Your task to perform on an android device: open app "Grab" (install if not already installed) and go to login screen Image 0: 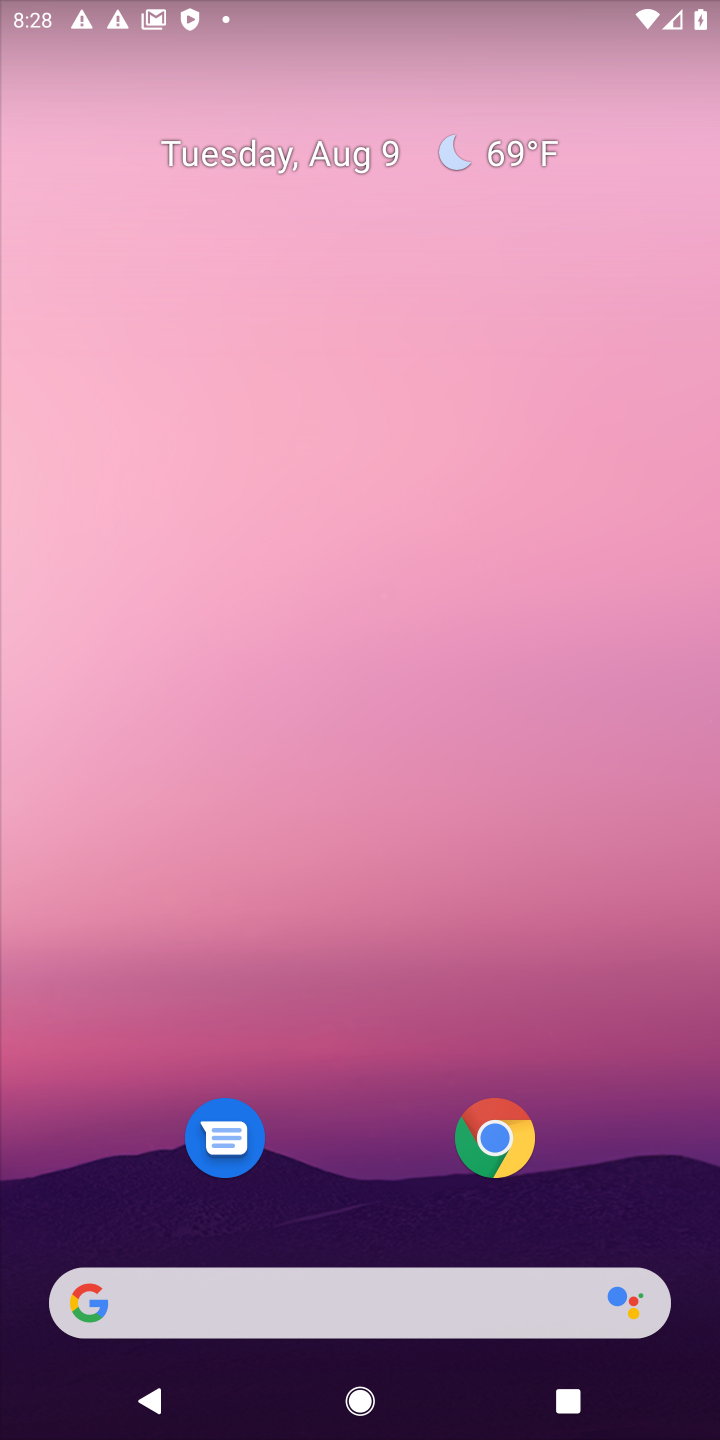
Step 0: drag from (328, 1230) to (321, 196)
Your task to perform on an android device: open app "Grab" (install if not already installed) and go to login screen Image 1: 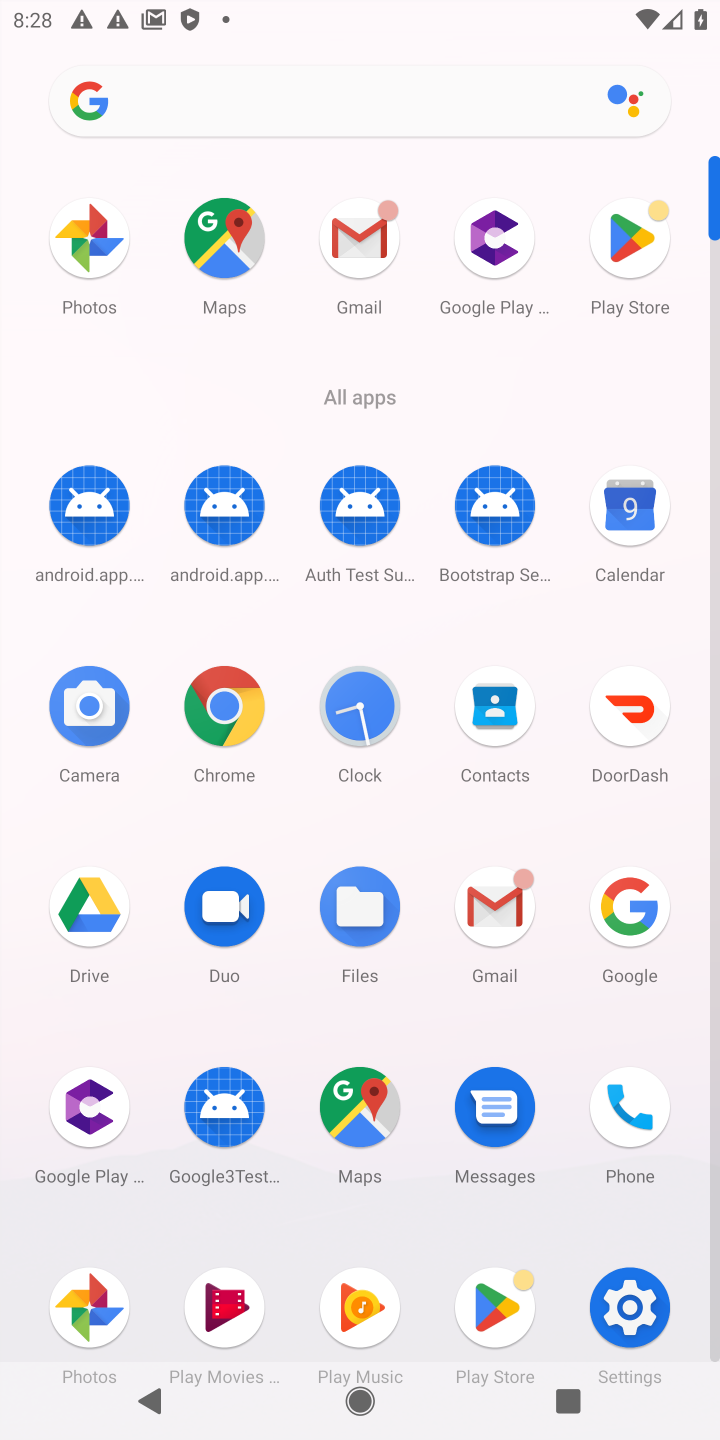
Step 1: click (647, 243)
Your task to perform on an android device: open app "Grab" (install if not already installed) and go to login screen Image 2: 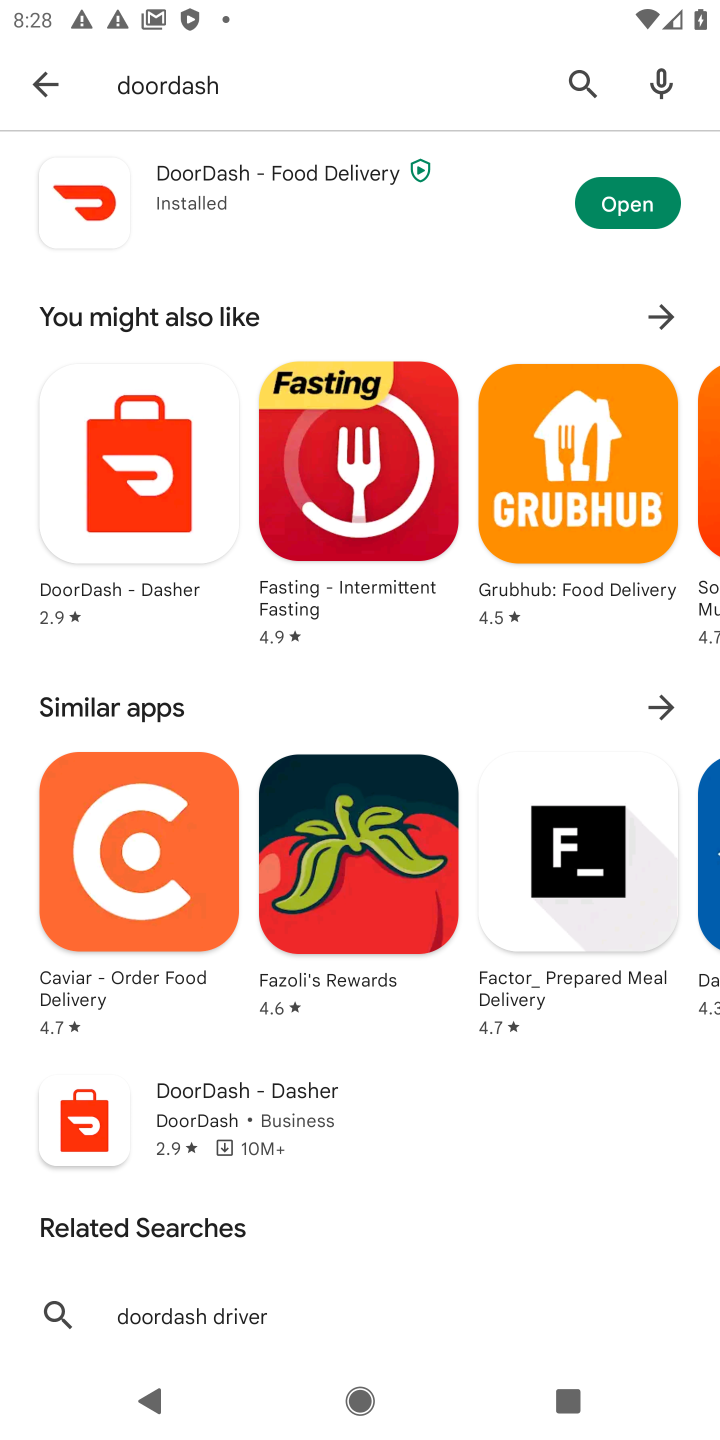
Step 2: click (556, 100)
Your task to perform on an android device: open app "Grab" (install if not already installed) and go to login screen Image 3: 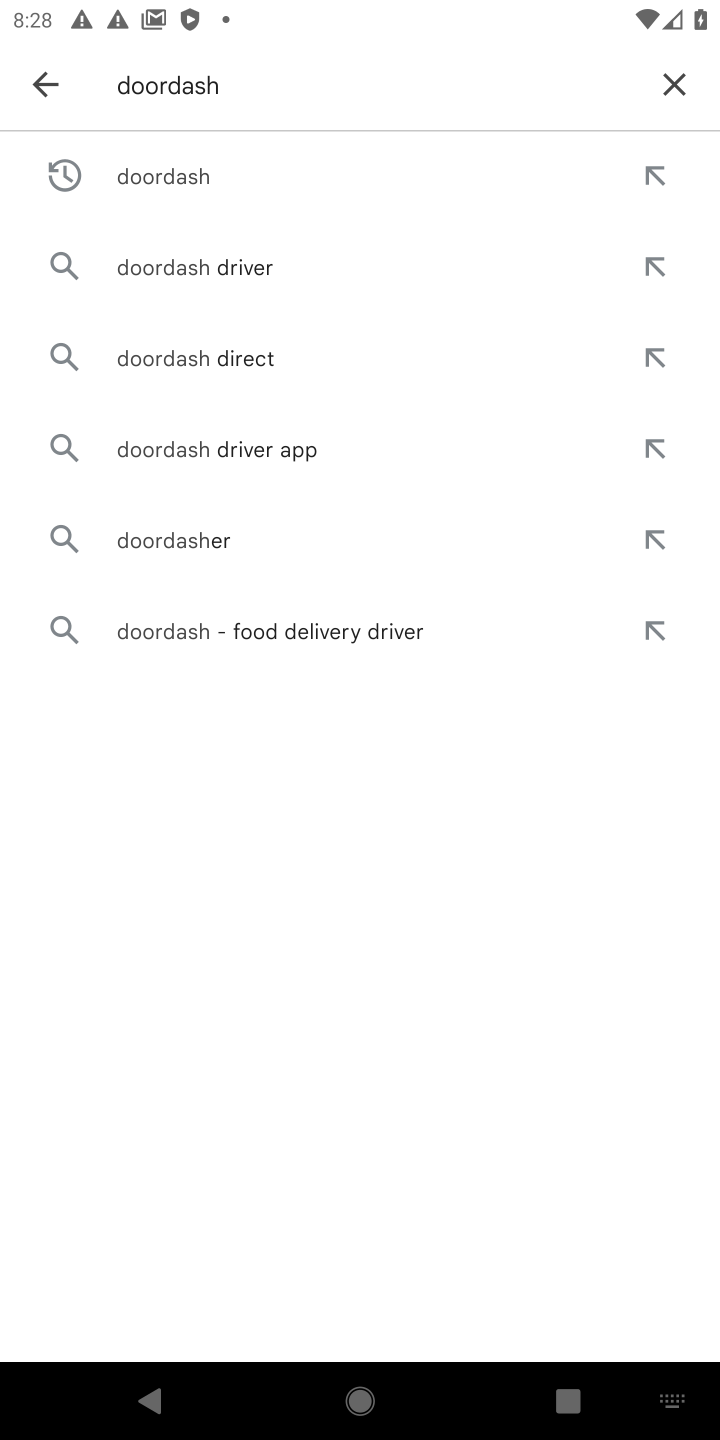
Step 3: click (688, 94)
Your task to perform on an android device: open app "Grab" (install if not already installed) and go to login screen Image 4: 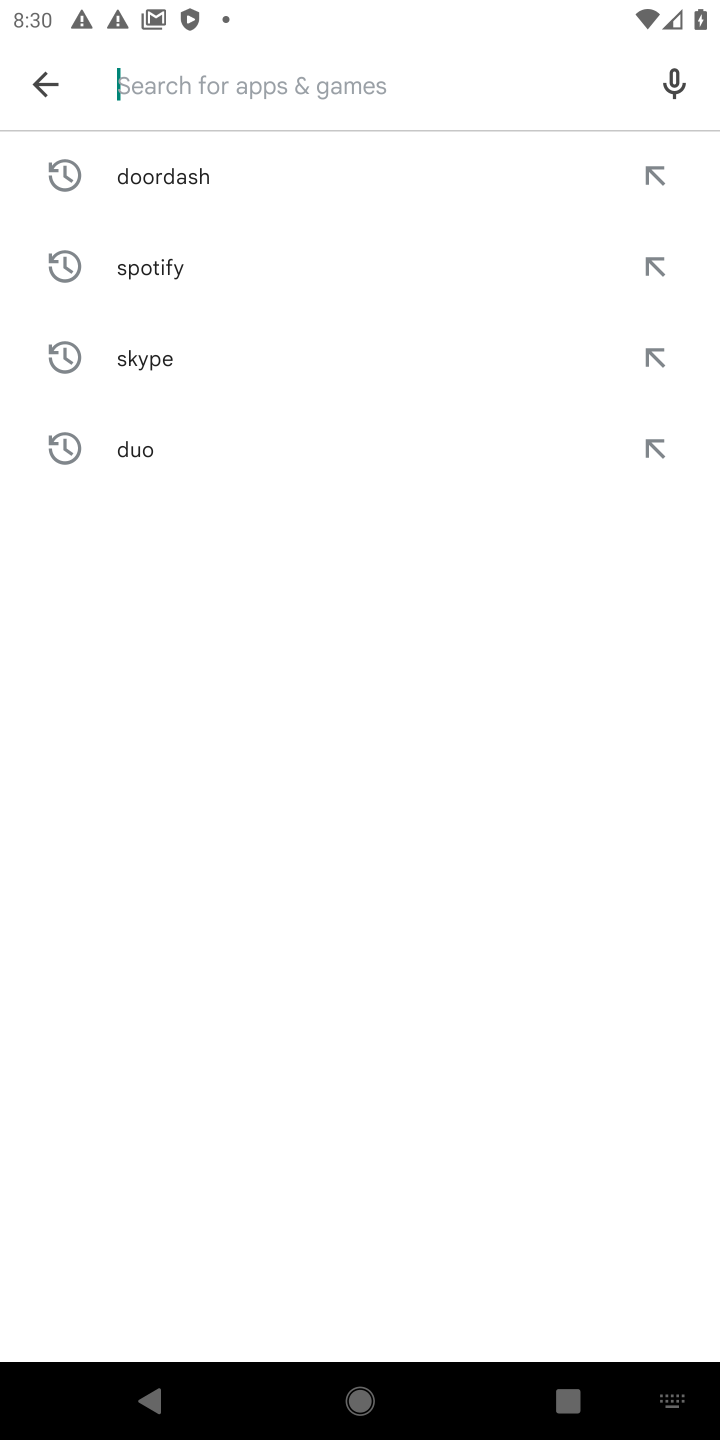
Step 4: type "grab"
Your task to perform on an android device: open app "Grab" (install if not already installed) and go to login screen Image 5: 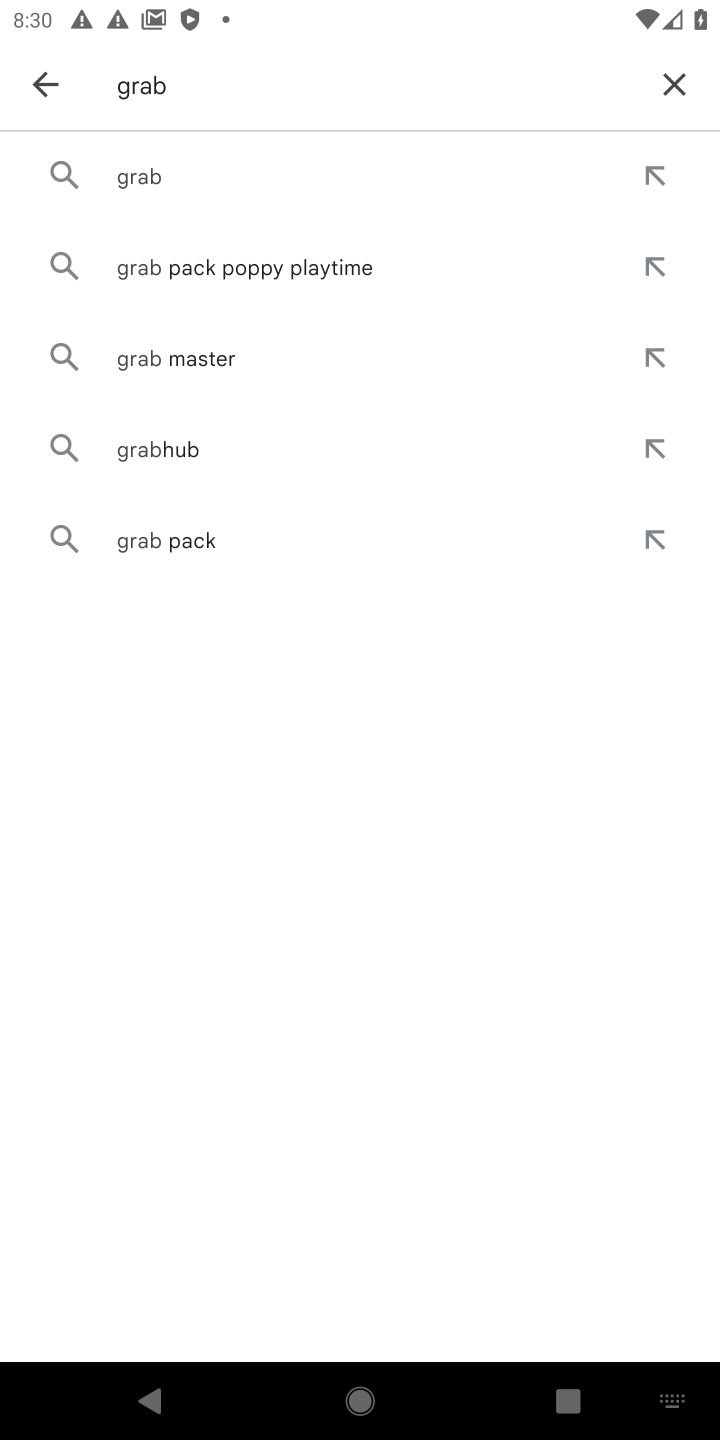
Step 5: click (252, 156)
Your task to perform on an android device: open app "Grab" (install if not already installed) and go to login screen Image 6: 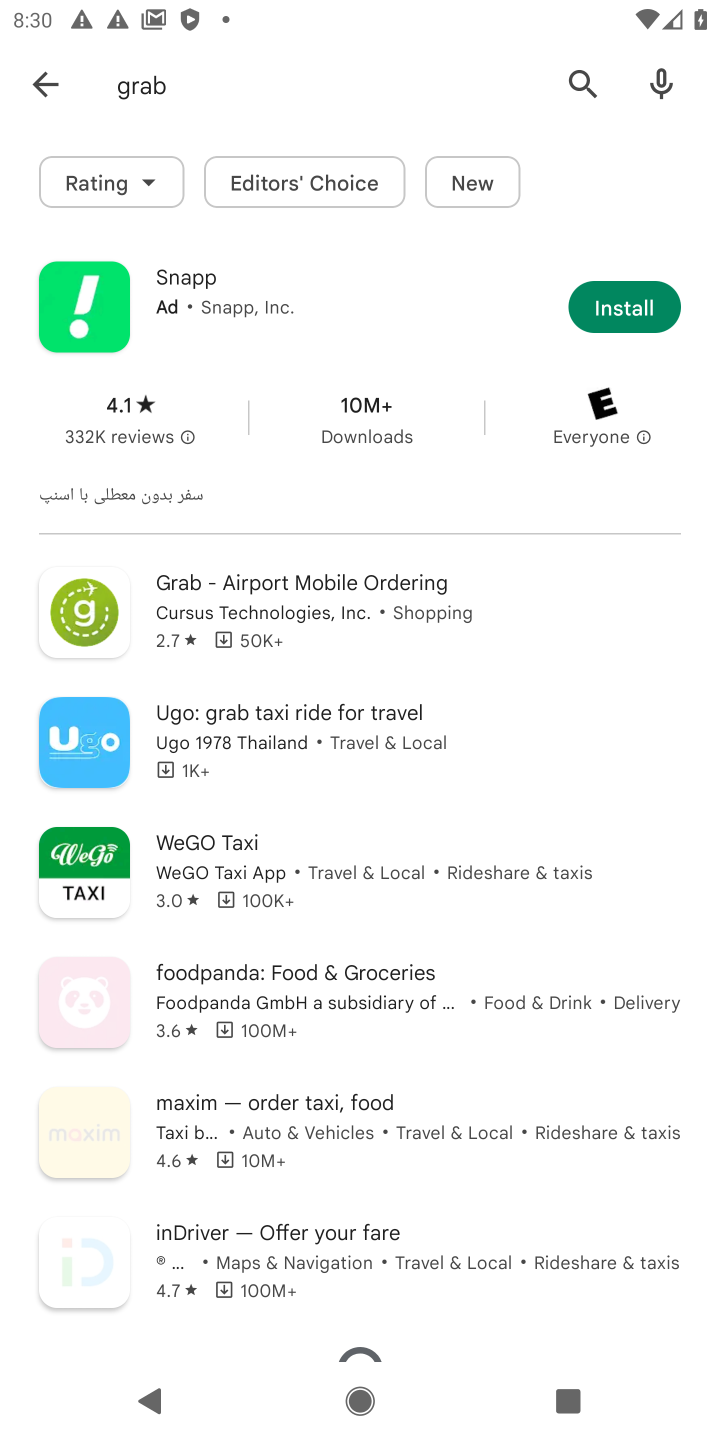
Step 6: click (608, 295)
Your task to perform on an android device: open app "Grab" (install if not already installed) and go to login screen Image 7: 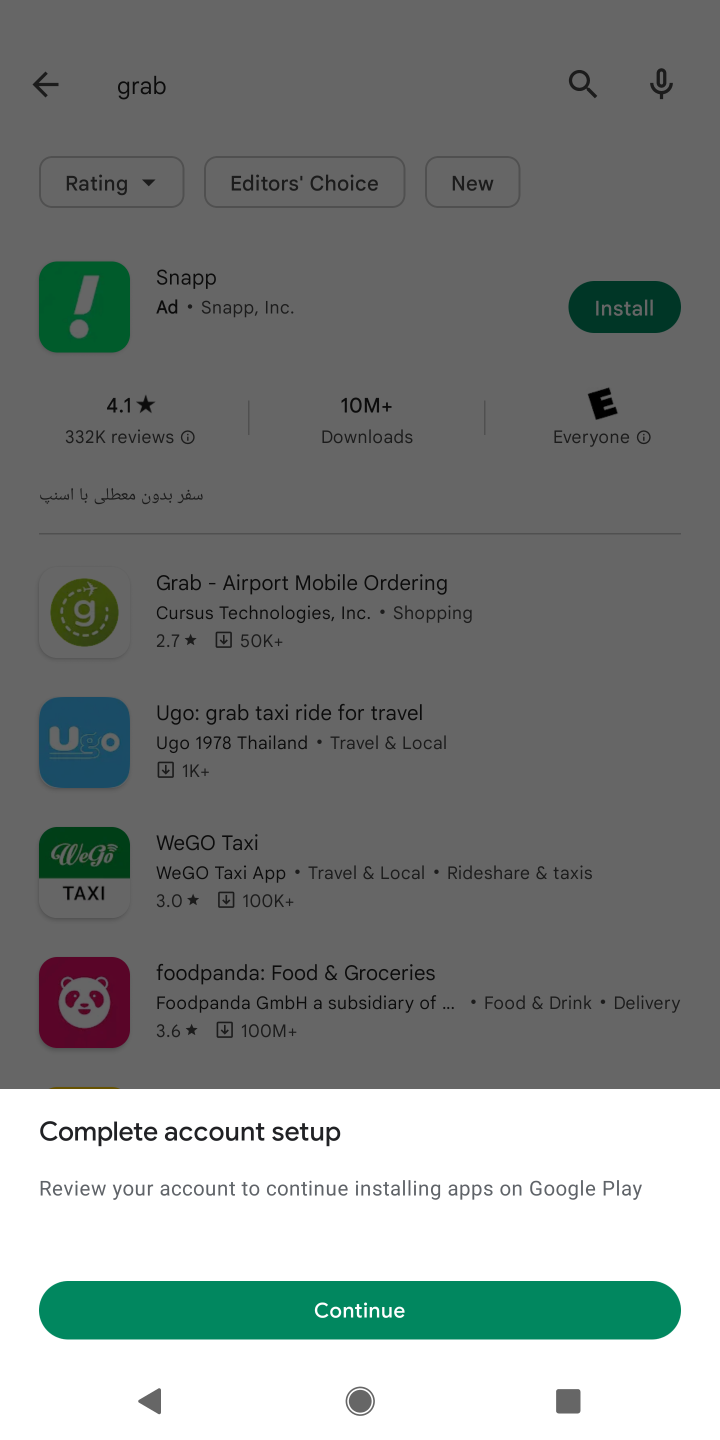
Step 7: click (252, 1304)
Your task to perform on an android device: open app "Grab" (install if not already installed) and go to login screen Image 8: 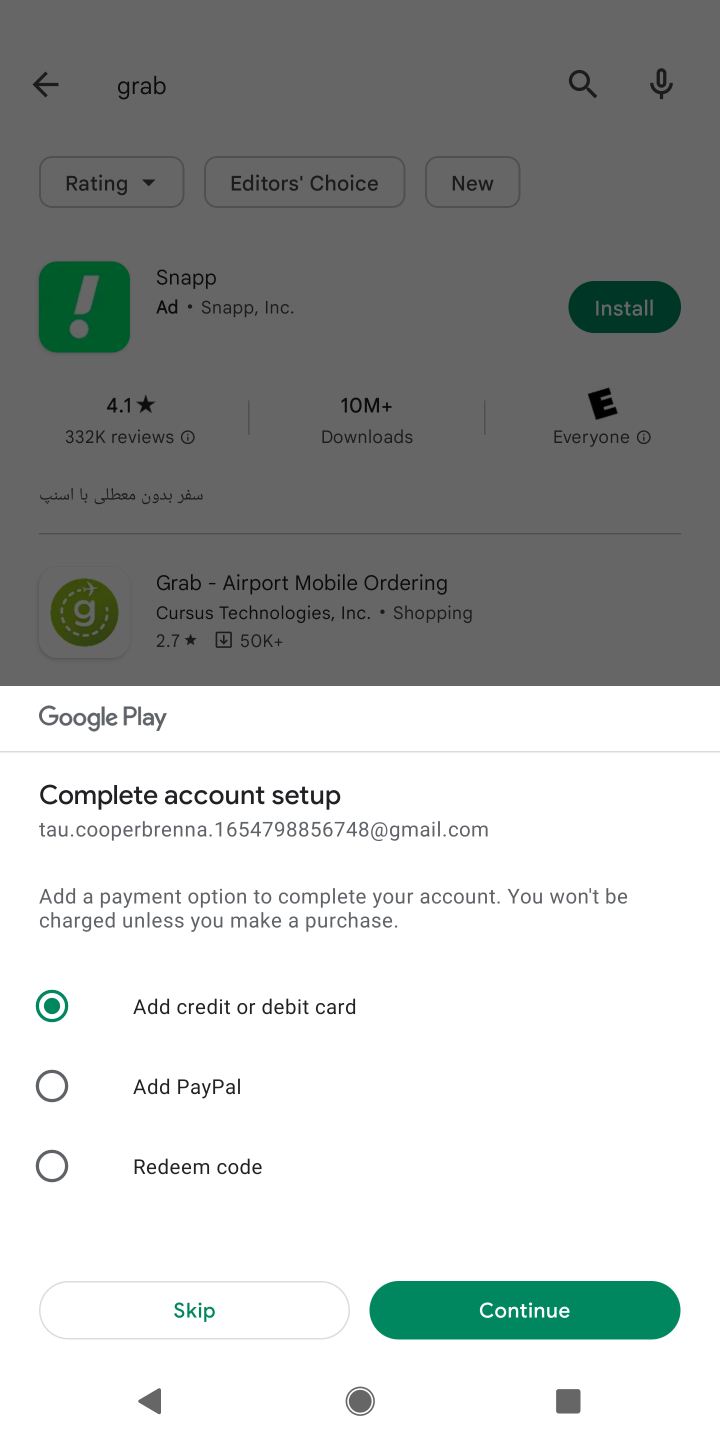
Step 8: click (133, 1287)
Your task to perform on an android device: open app "Grab" (install if not already installed) and go to login screen Image 9: 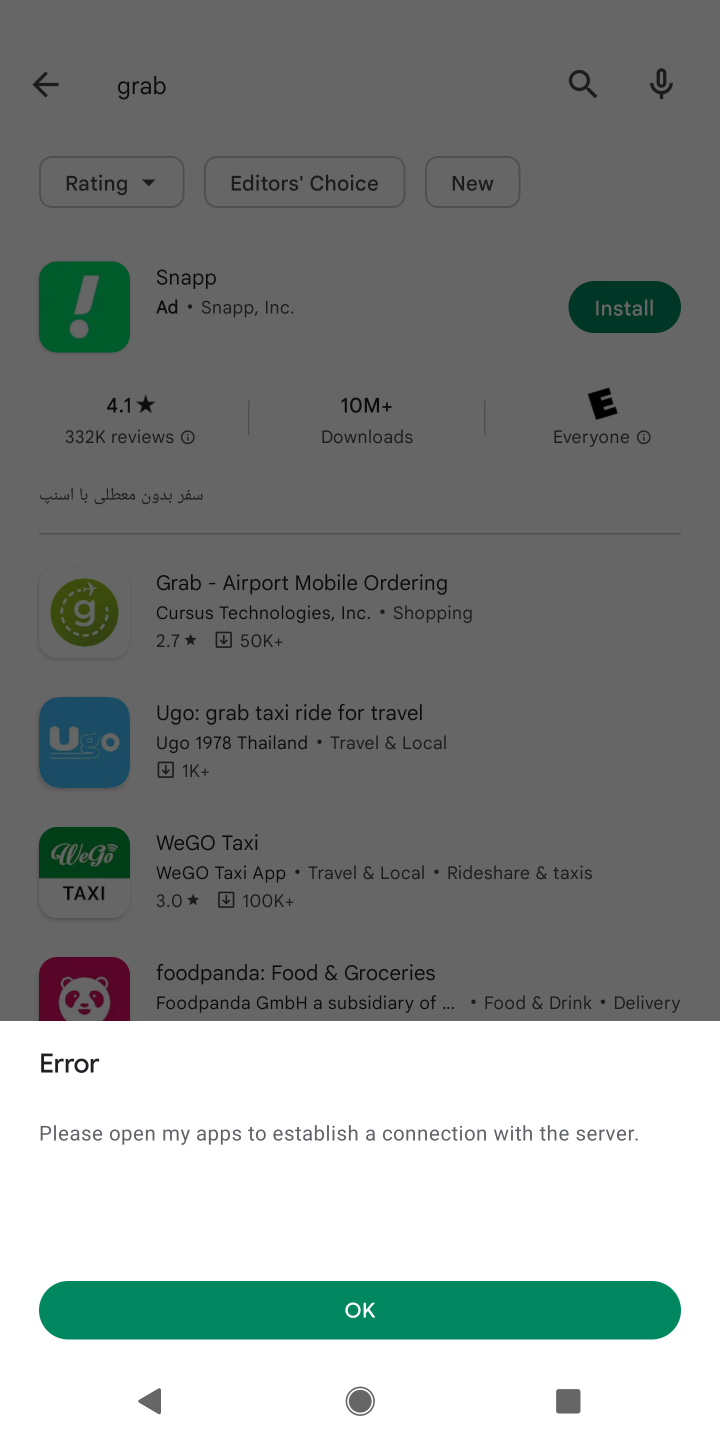
Step 9: task complete